Your task to perform on an android device: stop showing notifications on the lock screen Image 0: 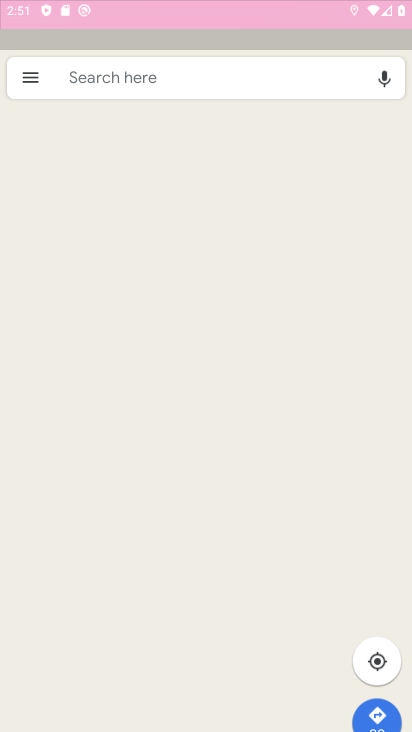
Step 0: click (291, 311)
Your task to perform on an android device: stop showing notifications on the lock screen Image 1: 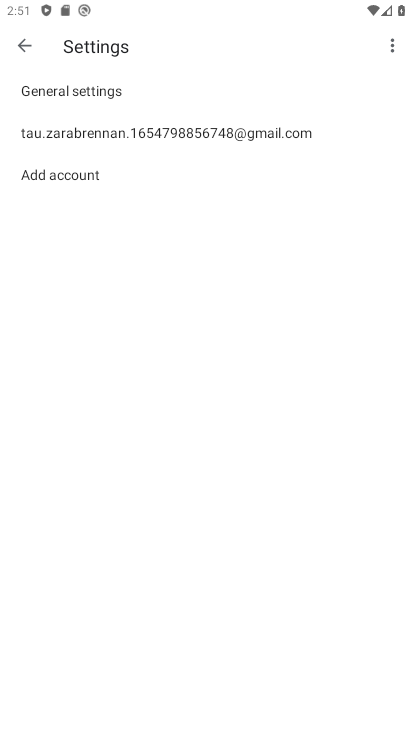
Step 1: press home button
Your task to perform on an android device: stop showing notifications on the lock screen Image 2: 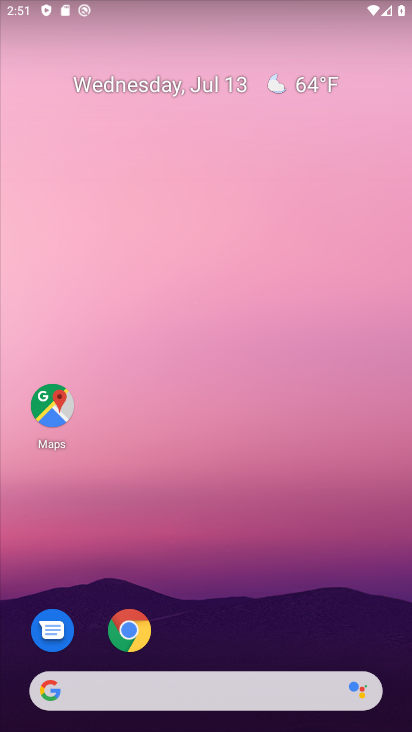
Step 2: drag from (218, 656) to (266, 117)
Your task to perform on an android device: stop showing notifications on the lock screen Image 3: 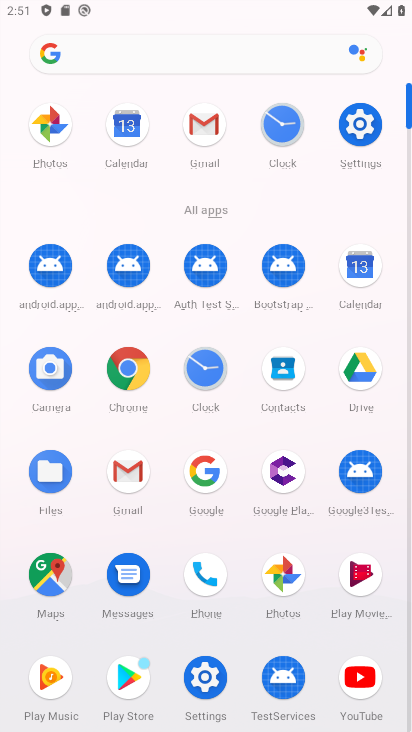
Step 3: click (373, 130)
Your task to perform on an android device: stop showing notifications on the lock screen Image 4: 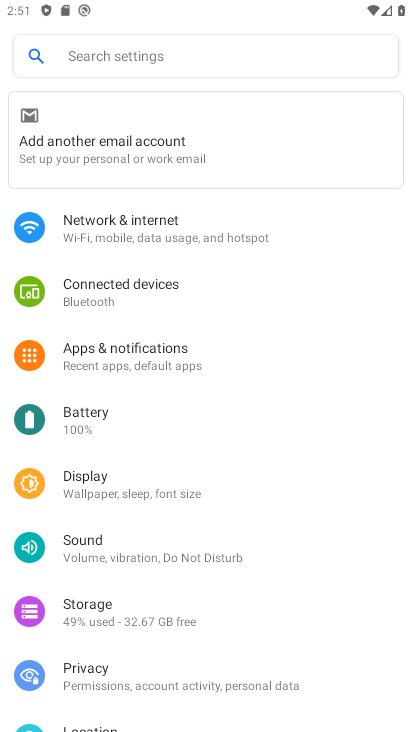
Step 4: click (196, 342)
Your task to perform on an android device: stop showing notifications on the lock screen Image 5: 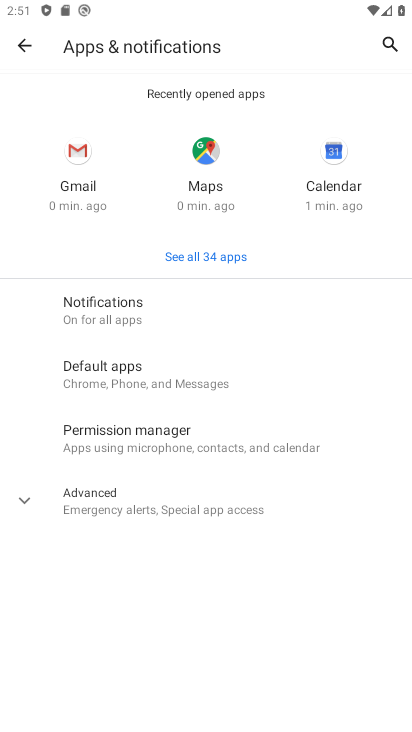
Step 5: click (138, 291)
Your task to perform on an android device: stop showing notifications on the lock screen Image 6: 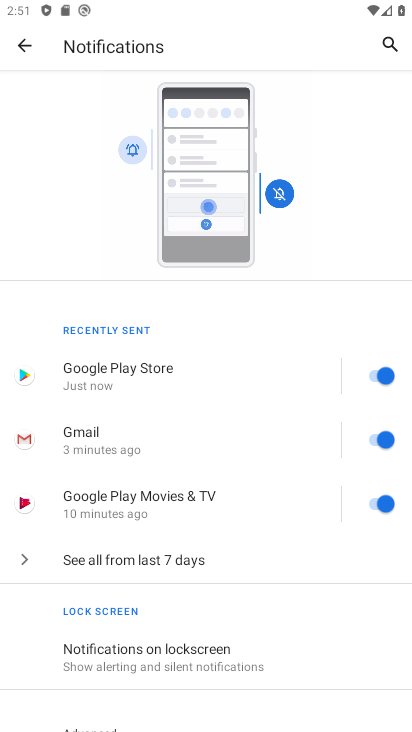
Step 6: click (167, 643)
Your task to perform on an android device: stop showing notifications on the lock screen Image 7: 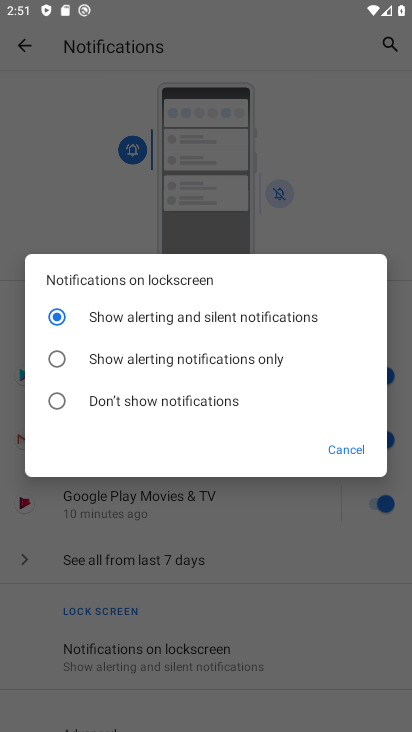
Step 7: click (150, 404)
Your task to perform on an android device: stop showing notifications on the lock screen Image 8: 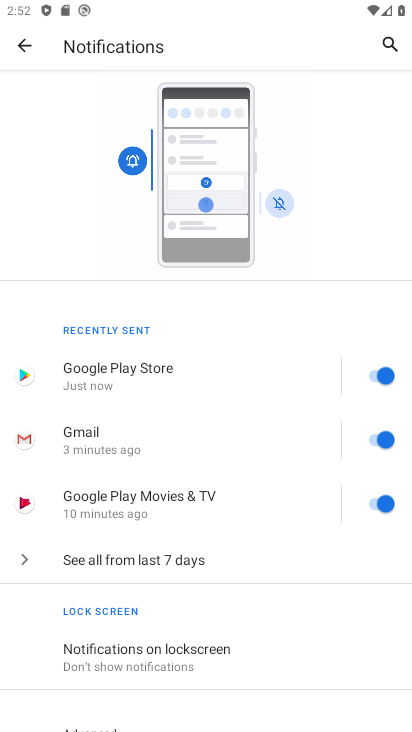
Step 8: task complete